Your task to perform on an android device: toggle notification dots Image 0: 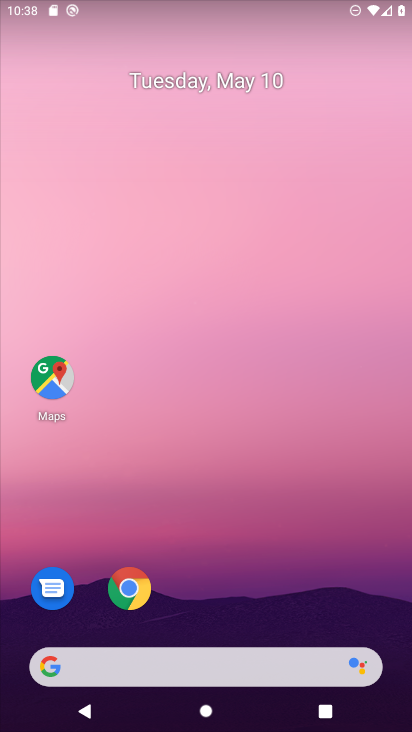
Step 0: drag from (195, 617) to (199, 190)
Your task to perform on an android device: toggle notification dots Image 1: 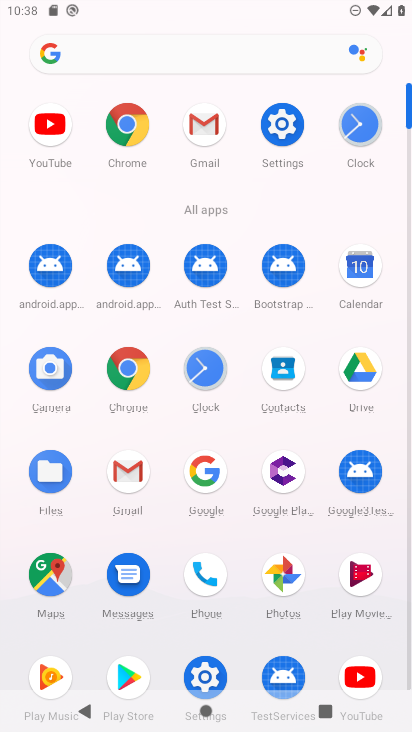
Step 1: click (297, 127)
Your task to perform on an android device: toggle notification dots Image 2: 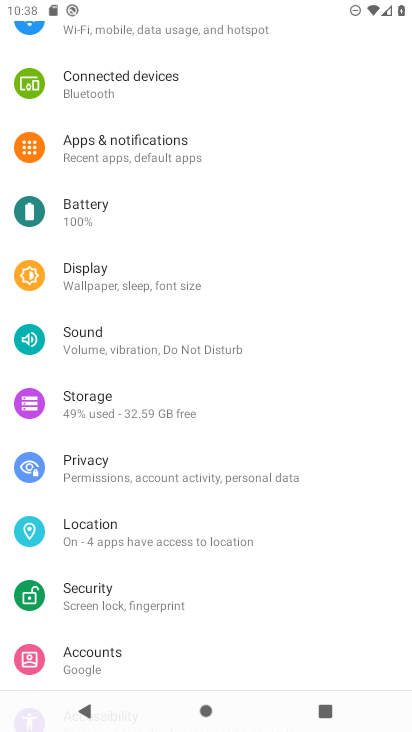
Step 2: click (154, 158)
Your task to perform on an android device: toggle notification dots Image 3: 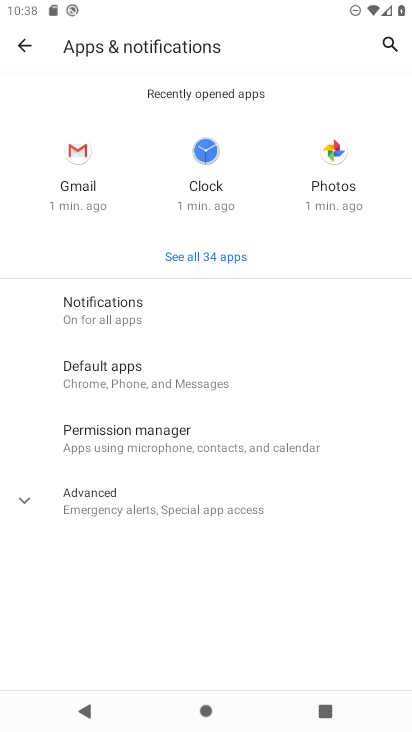
Step 3: click (153, 491)
Your task to perform on an android device: toggle notification dots Image 4: 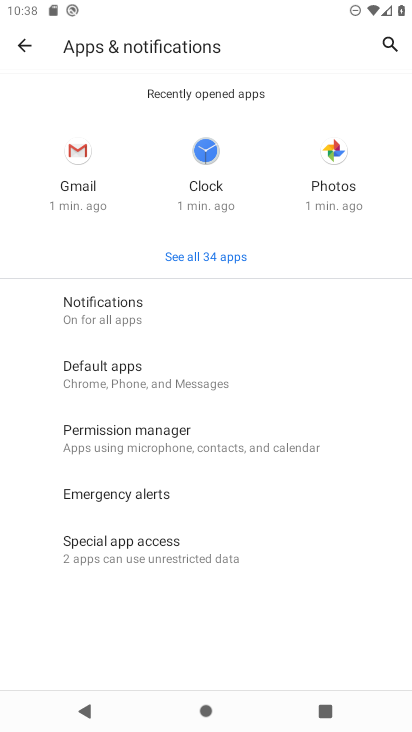
Step 4: drag from (214, 559) to (213, 415)
Your task to perform on an android device: toggle notification dots Image 5: 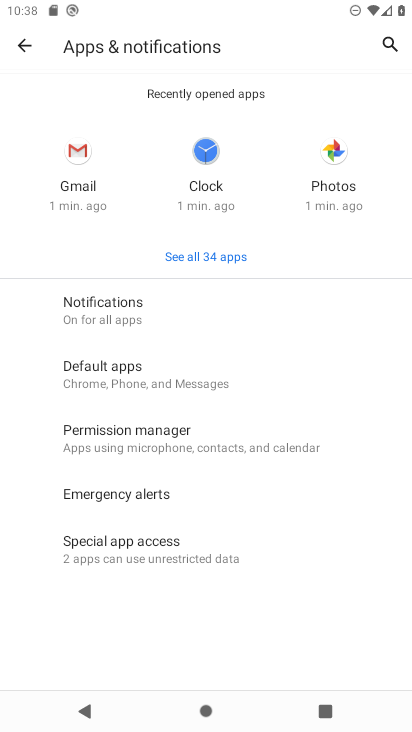
Step 5: click (167, 315)
Your task to perform on an android device: toggle notification dots Image 6: 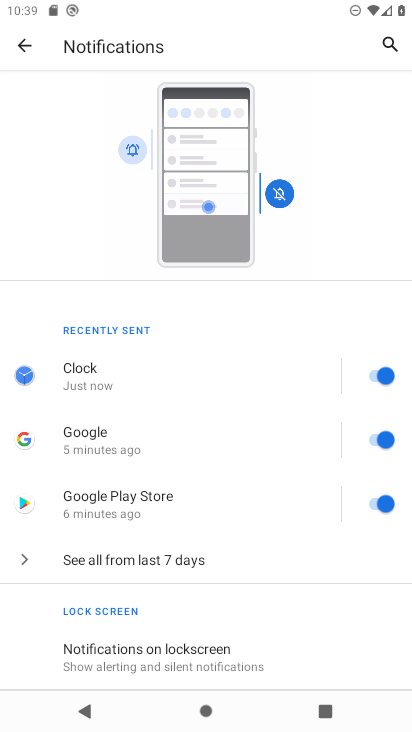
Step 6: drag from (238, 609) to (238, 256)
Your task to perform on an android device: toggle notification dots Image 7: 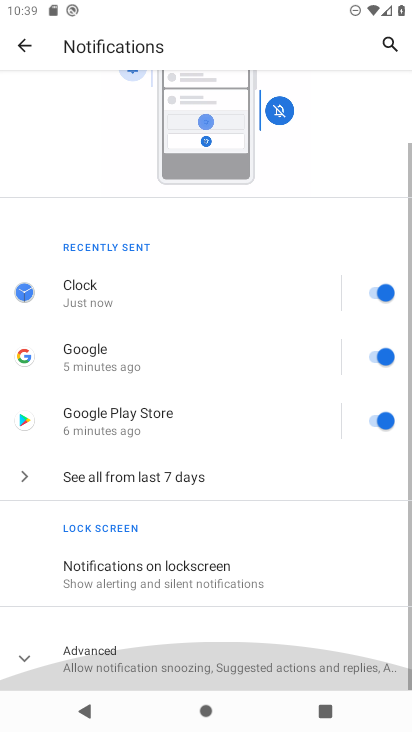
Step 7: click (192, 658)
Your task to perform on an android device: toggle notification dots Image 8: 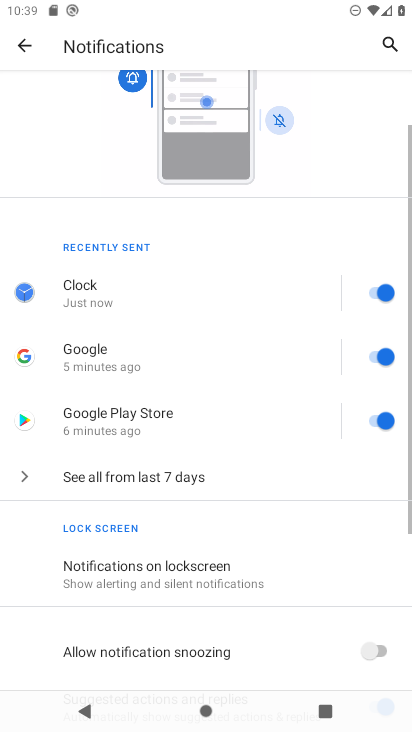
Step 8: drag from (184, 654) to (187, 415)
Your task to perform on an android device: toggle notification dots Image 9: 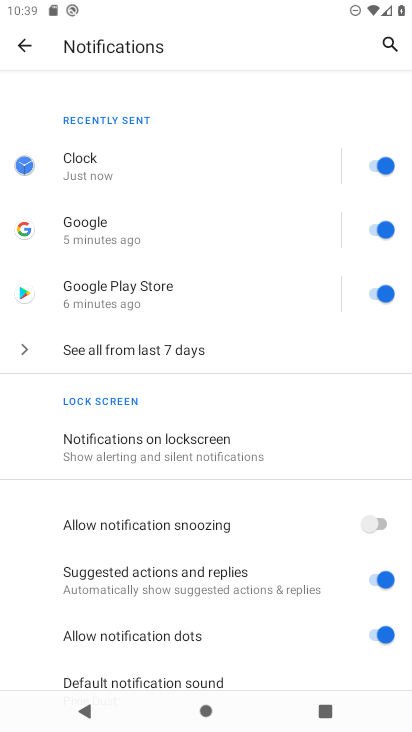
Step 9: drag from (206, 649) to (225, 409)
Your task to perform on an android device: toggle notification dots Image 10: 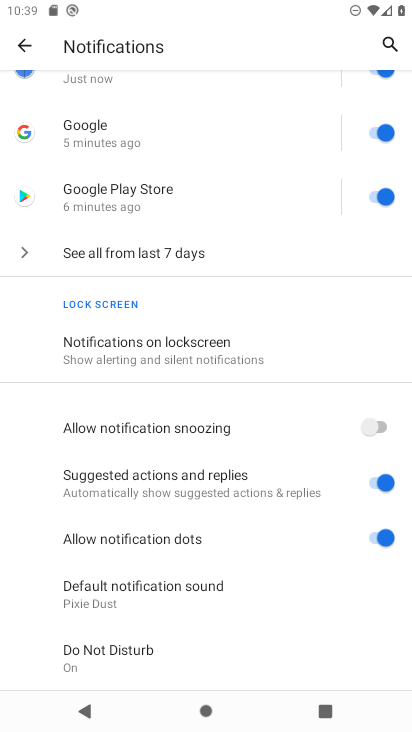
Step 10: click (375, 527)
Your task to perform on an android device: toggle notification dots Image 11: 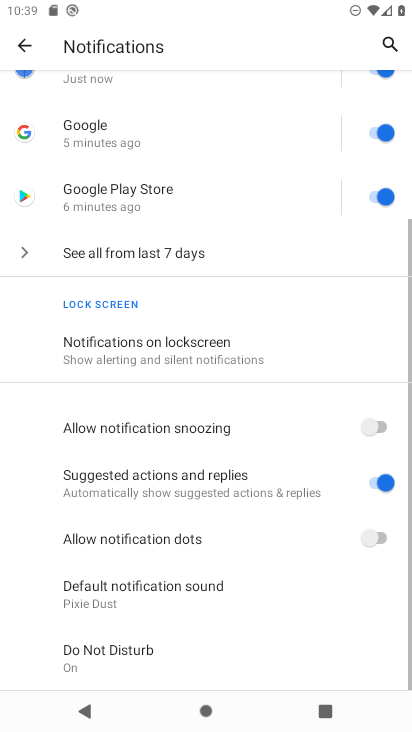
Step 11: task complete